Your task to perform on an android device: add a contact in the contacts app Image 0: 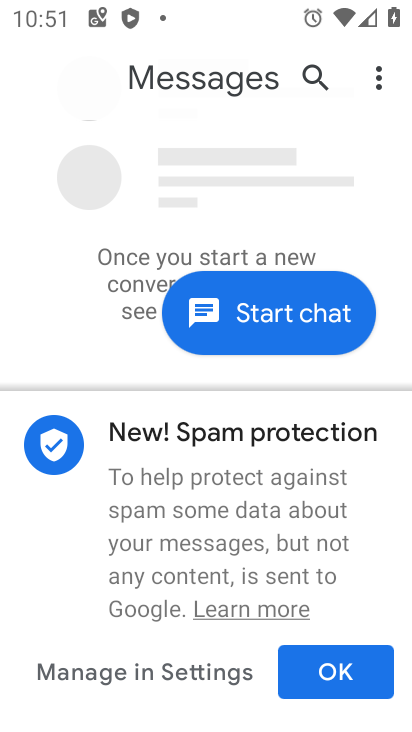
Step 0: press home button
Your task to perform on an android device: add a contact in the contacts app Image 1: 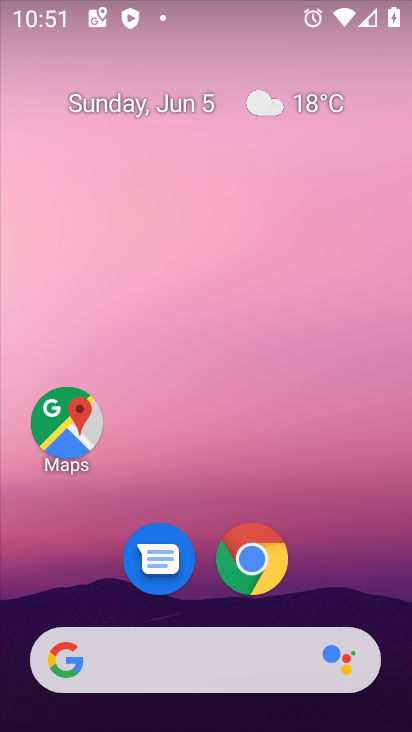
Step 1: click (330, 220)
Your task to perform on an android device: add a contact in the contacts app Image 2: 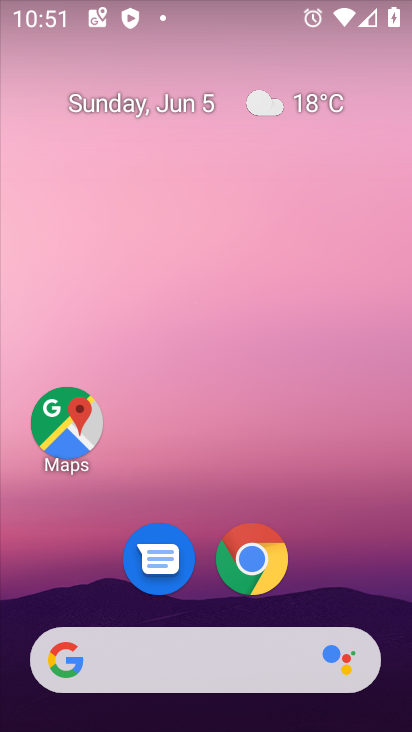
Step 2: drag from (384, 685) to (360, 336)
Your task to perform on an android device: add a contact in the contacts app Image 3: 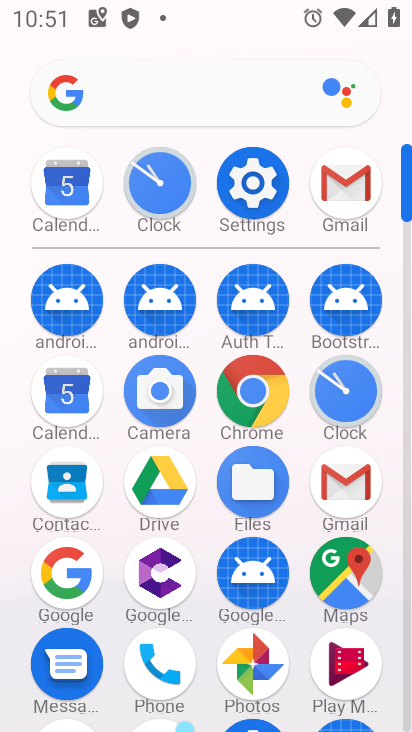
Step 3: click (66, 479)
Your task to perform on an android device: add a contact in the contacts app Image 4: 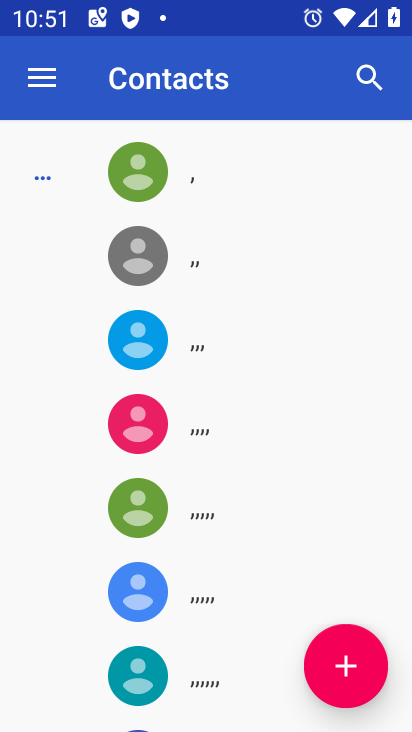
Step 4: click (344, 691)
Your task to perform on an android device: add a contact in the contacts app Image 5: 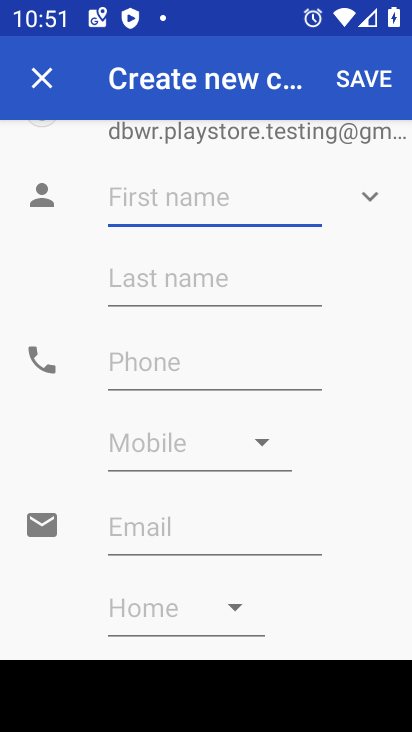
Step 5: type ""
Your task to perform on an android device: add a contact in the contacts app Image 6: 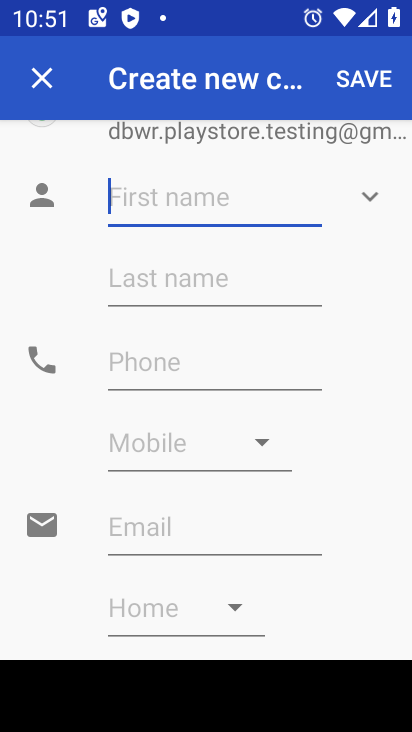
Step 6: type "esrhdtyf"
Your task to perform on an android device: add a contact in the contacts app Image 7: 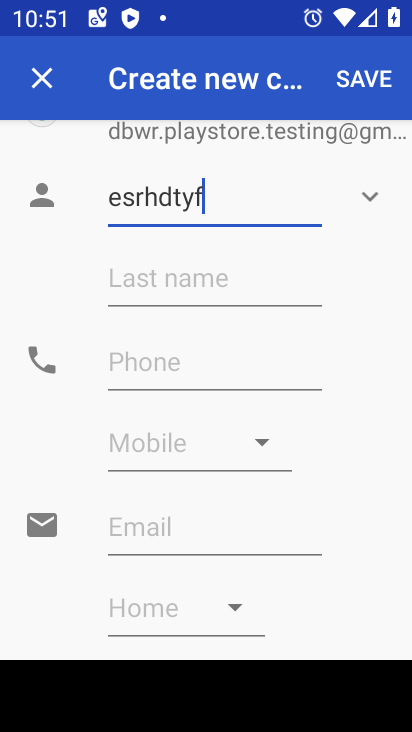
Step 7: click (235, 287)
Your task to perform on an android device: add a contact in the contacts app Image 8: 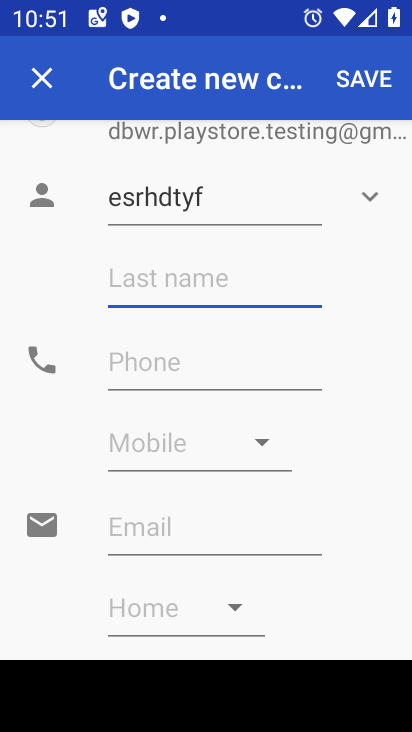
Step 8: type "xjrdfj,gdxjcj"
Your task to perform on an android device: add a contact in the contacts app Image 9: 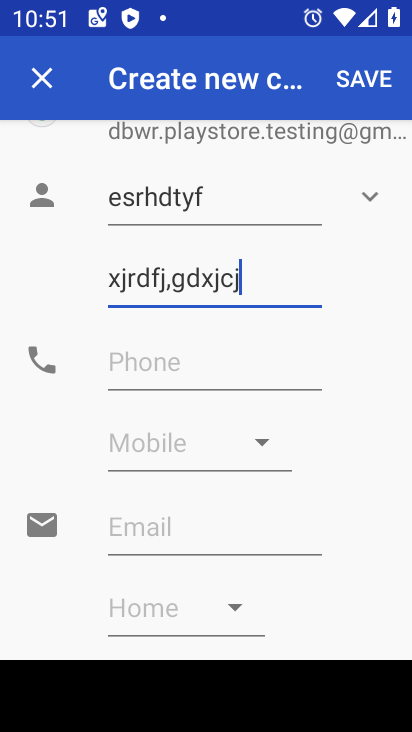
Step 9: click (281, 374)
Your task to perform on an android device: add a contact in the contacts app Image 10: 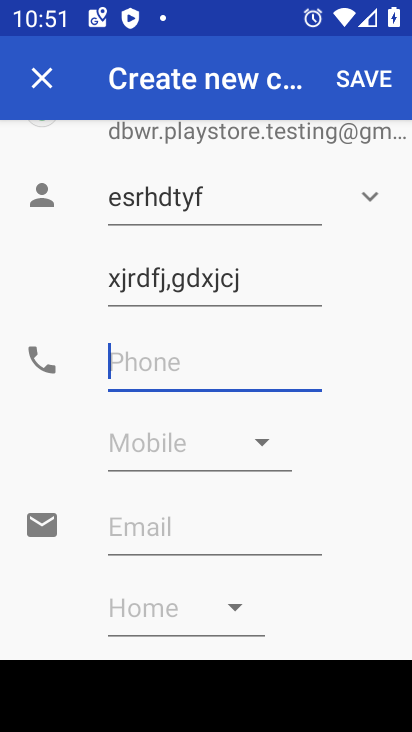
Step 10: type "67475476367365"
Your task to perform on an android device: add a contact in the contacts app Image 11: 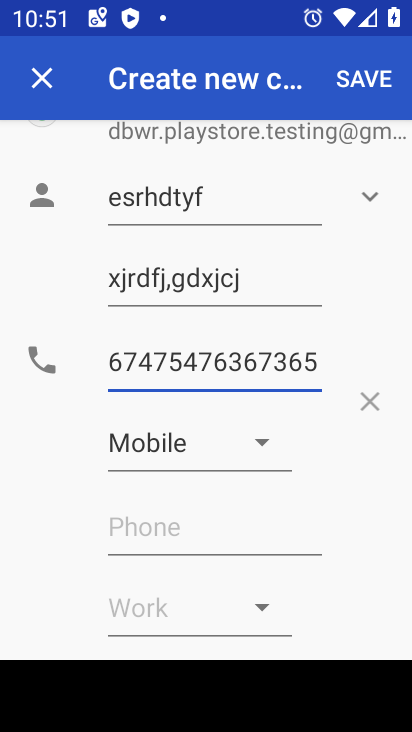
Step 11: click (389, 77)
Your task to perform on an android device: add a contact in the contacts app Image 12: 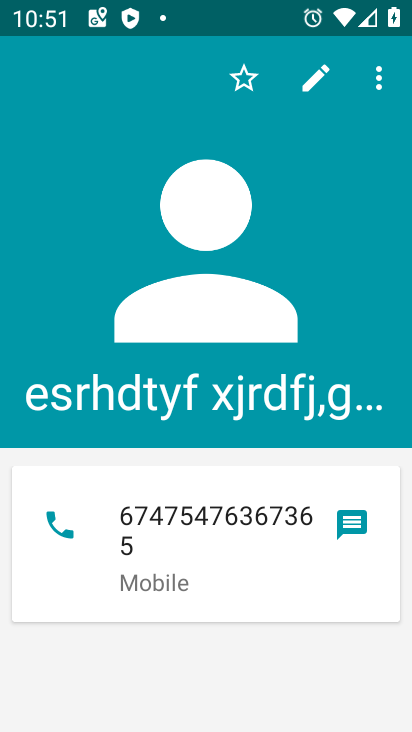
Step 12: task complete